Your task to perform on an android device: delete the emails in spam in the gmail app Image 0: 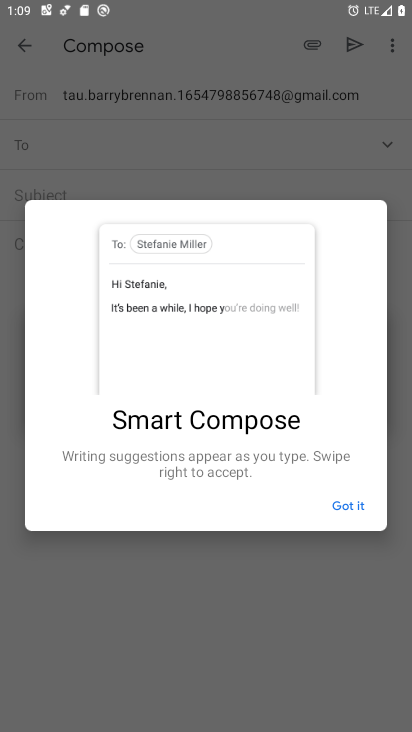
Step 0: press home button
Your task to perform on an android device: delete the emails in spam in the gmail app Image 1: 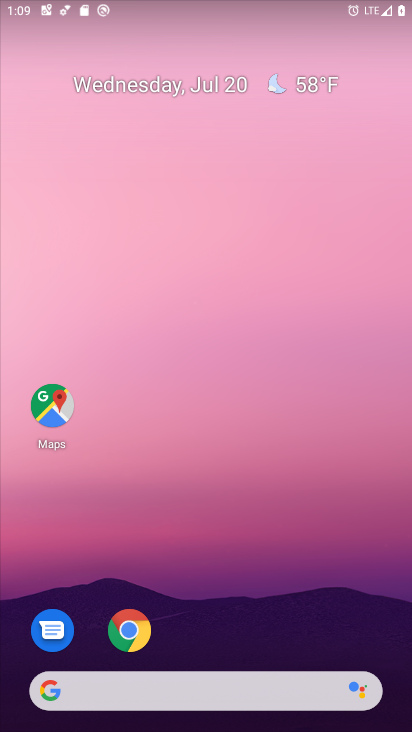
Step 1: drag from (207, 668) to (247, 91)
Your task to perform on an android device: delete the emails in spam in the gmail app Image 2: 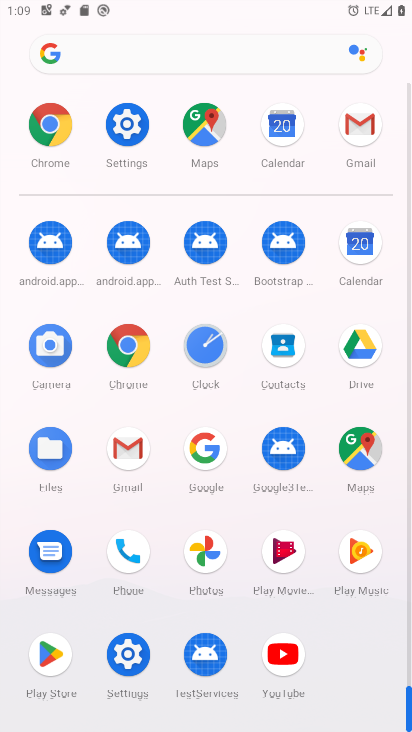
Step 2: click (135, 458)
Your task to perform on an android device: delete the emails in spam in the gmail app Image 3: 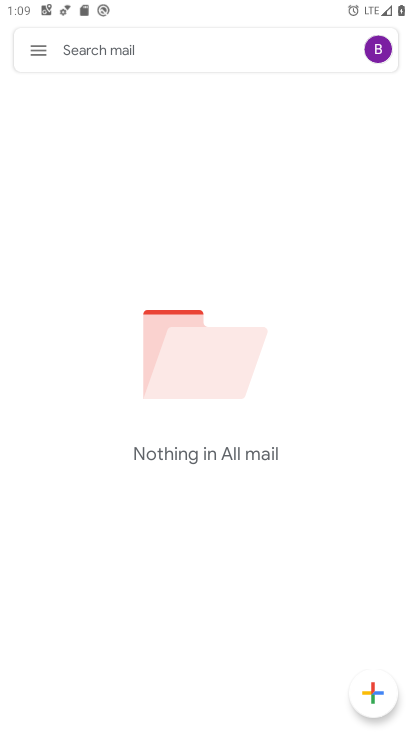
Step 3: click (41, 56)
Your task to perform on an android device: delete the emails in spam in the gmail app Image 4: 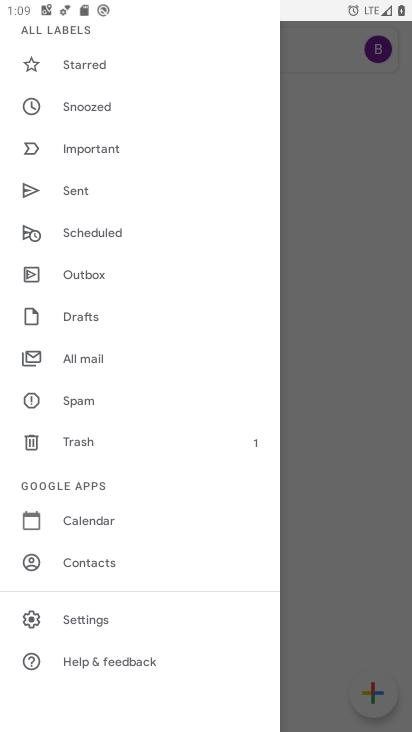
Step 4: click (98, 364)
Your task to perform on an android device: delete the emails in spam in the gmail app Image 5: 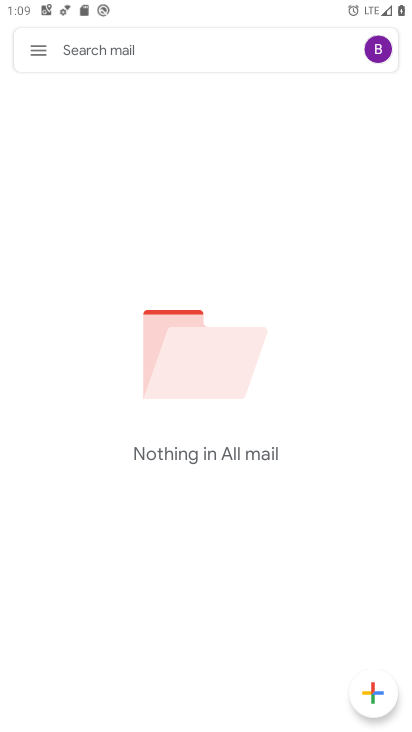
Step 5: task complete